Your task to perform on an android device: turn on improve location accuracy Image 0: 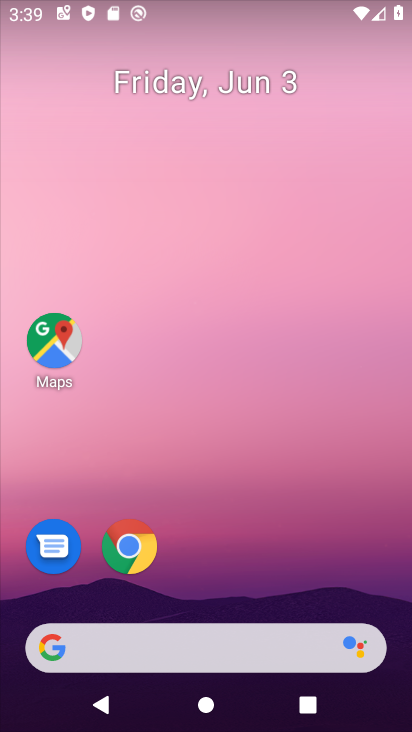
Step 0: drag from (212, 536) to (254, 9)
Your task to perform on an android device: turn on improve location accuracy Image 1: 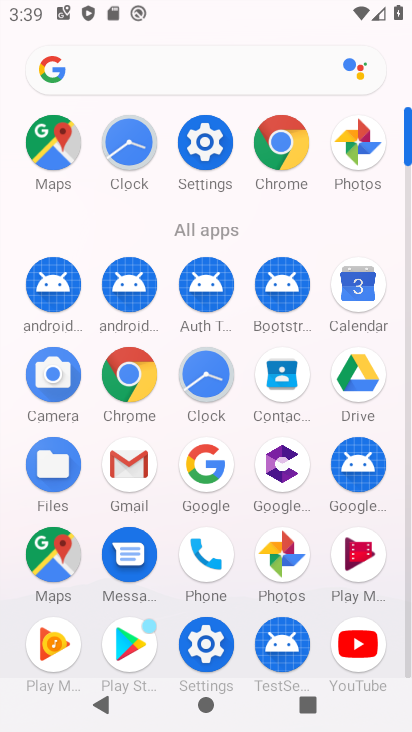
Step 1: click (209, 136)
Your task to perform on an android device: turn on improve location accuracy Image 2: 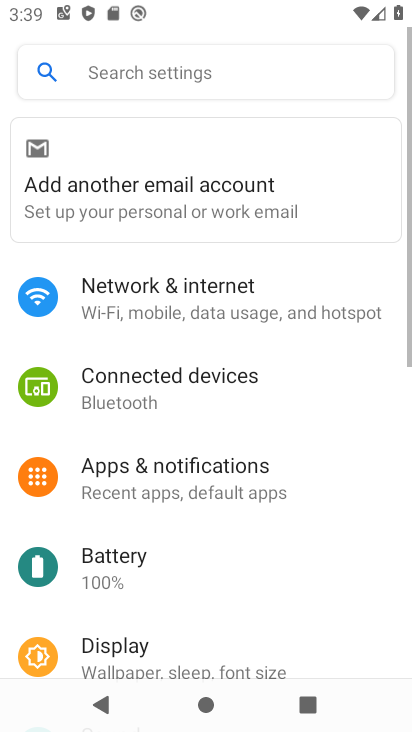
Step 2: drag from (214, 584) to (232, 155)
Your task to perform on an android device: turn on improve location accuracy Image 3: 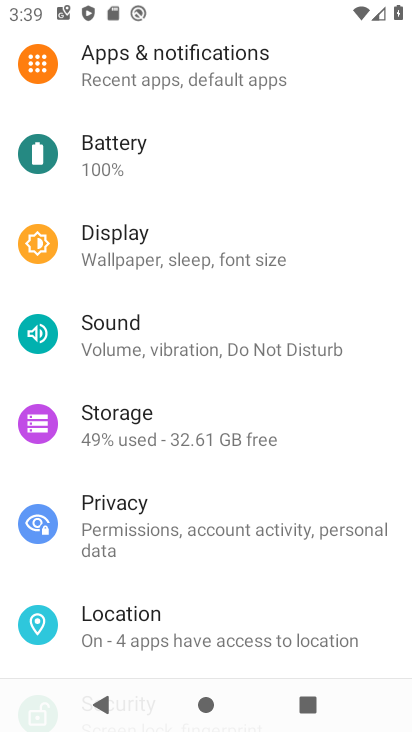
Step 3: click (166, 603)
Your task to perform on an android device: turn on improve location accuracy Image 4: 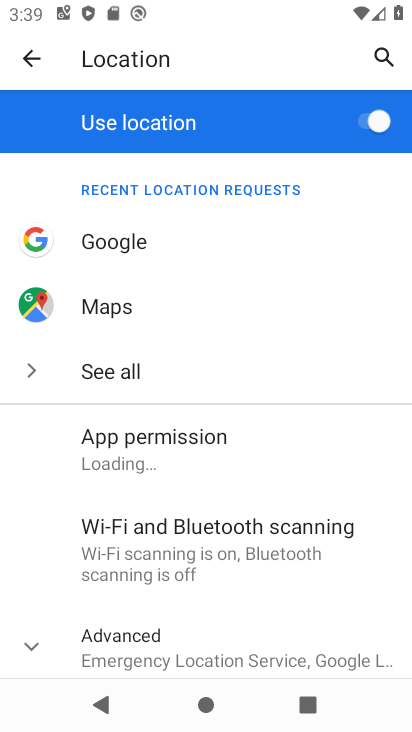
Step 4: click (30, 646)
Your task to perform on an android device: turn on improve location accuracy Image 5: 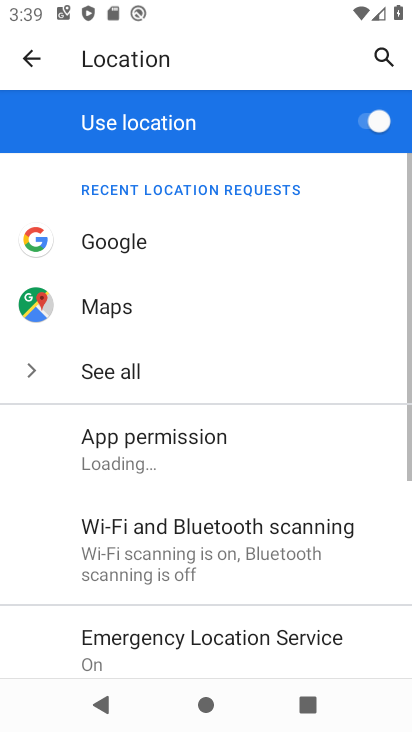
Step 5: task complete